Your task to perform on an android device: Search for "apple airpods pro" on bestbuy.com, select the first entry, add it to the cart, then select checkout. Image 0: 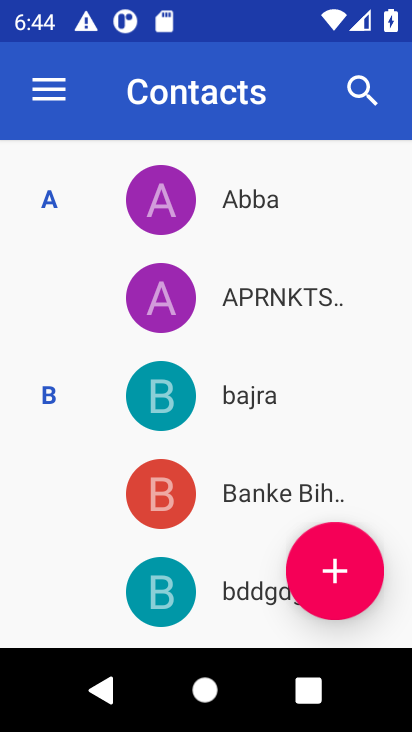
Step 0: press home button
Your task to perform on an android device: Search for "apple airpods pro" on bestbuy.com, select the first entry, add it to the cart, then select checkout. Image 1: 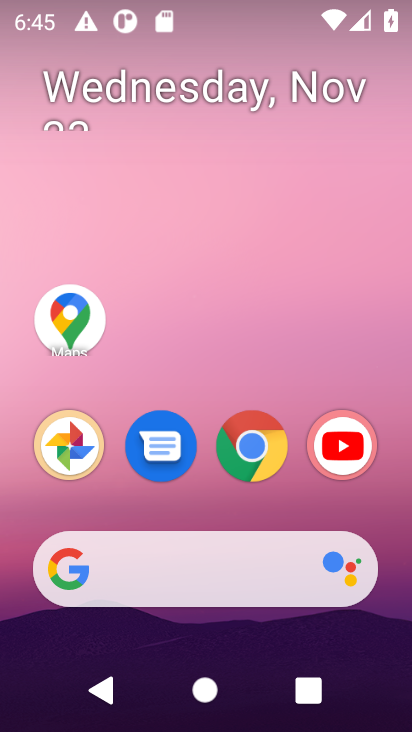
Step 1: click (126, 565)
Your task to perform on an android device: Search for "apple airpods pro" on bestbuy.com, select the first entry, add it to the cart, then select checkout. Image 2: 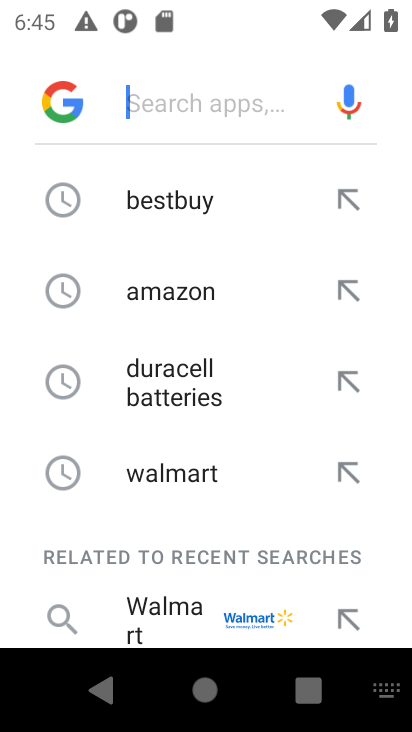
Step 2: click (202, 213)
Your task to perform on an android device: Search for "apple airpods pro" on bestbuy.com, select the first entry, add it to the cart, then select checkout. Image 3: 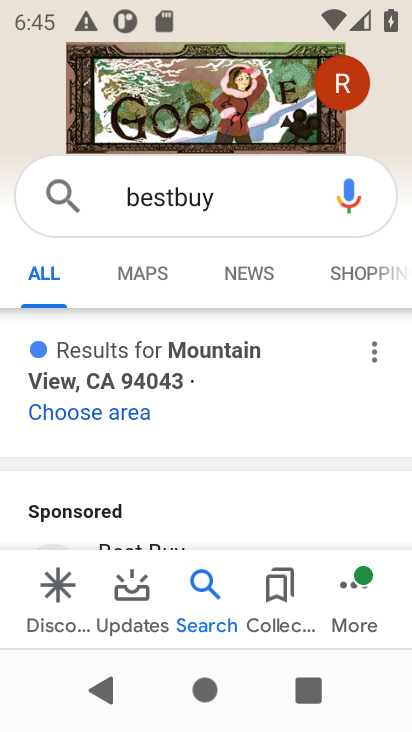
Step 3: click (136, 527)
Your task to perform on an android device: Search for "apple airpods pro" on bestbuy.com, select the first entry, add it to the cart, then select checkout. Image 4: 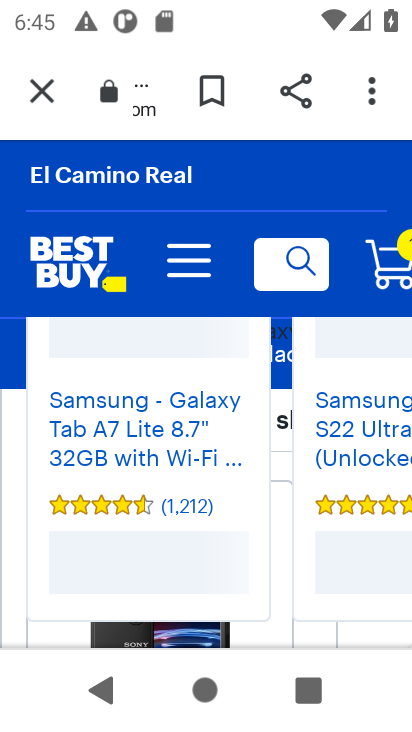
Step 4: click (270, 268)
Your task to perform on an android device: Search for "apple airpods pro" on bestbuy.com, select the first entry, add it to the cart, then select checkout. Image 5: 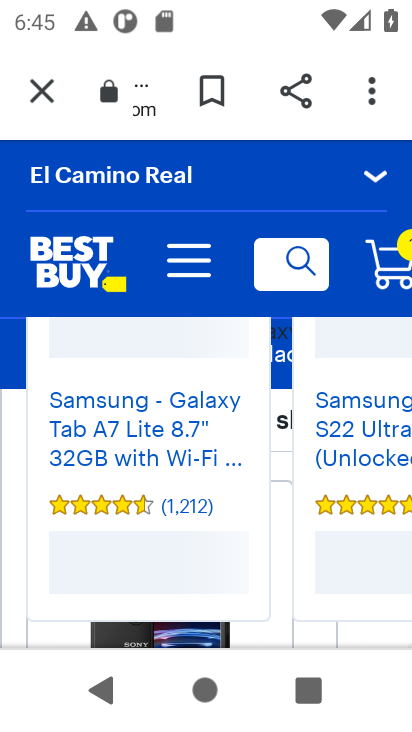
Step 5: click (272, 257)
Your task to perform on an android device: Search for "apple airpods pro" on bestbuy.com, select the first entry, add it to the cart, then select checkout. Image 6: 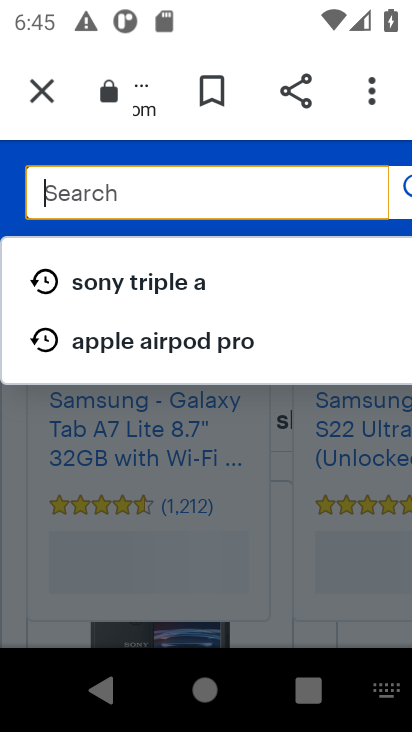
Step 6: type "apple airpods pro"
Your task to perform on an android device: Search for "apple airpods pro" on bestbuy.com, select the first entry, add it to the cart, then select checkout. Image 7: 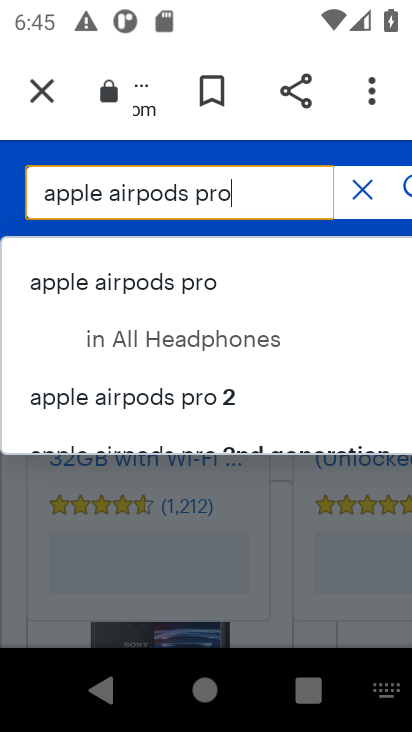
Step 7: click (204, 303)
Your task to perform on an android device: Search for "apple airpods pro" on bestbuy.com, select the first entry, add it to the cart, then select checkout. Image 8: 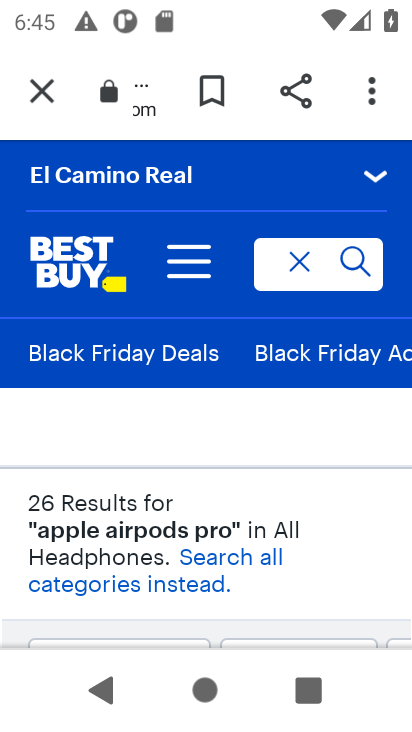
Step 8: drag from (310, 582) to (331, 315)
Your task to perform on an android device: Search for "apple airpods pro" on bestbuy.com, select the first entry, add it to the cart, then select checkout. Image 9: 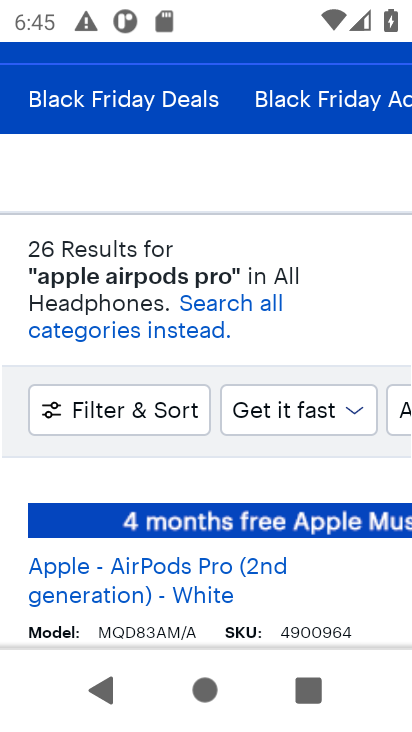
Step 9: click (232, 557)
Your task to perform on an android device: Search for "apple airpods pro" on bestbuy.com, select the first entry, add it to the cart, then select checkout. Image 10: 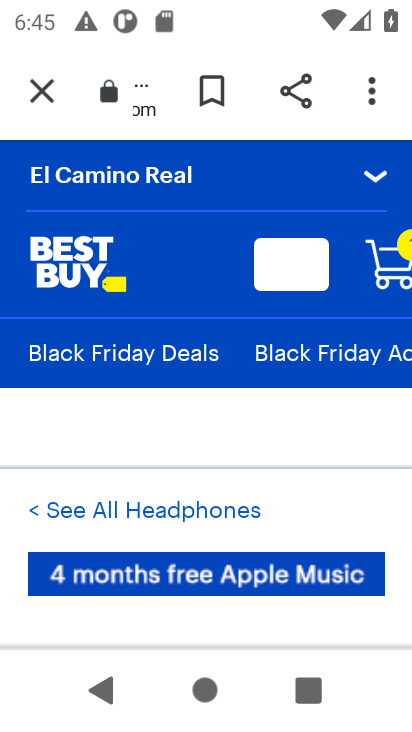
Step 10: drag from (273, 545) to (267, 130)
Your task to perform on an android device: Search for "apple airpods pro" on bestbuy.com, select the first entry, add it to the cart, then select checkout. Image 11: 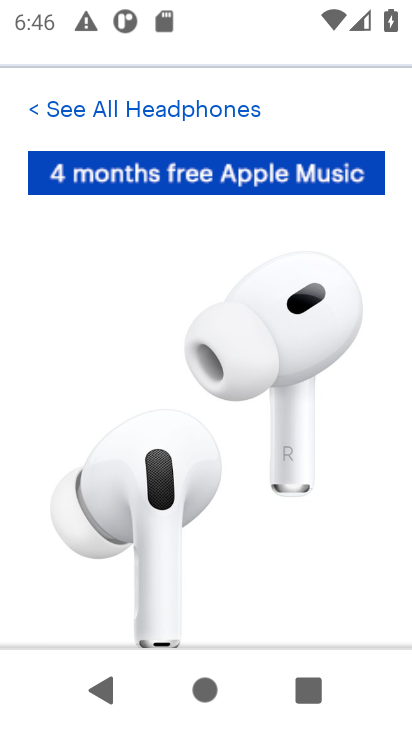
Step 11: drag from (327, 551) to (299, 103)
Your task to perform on an android device: Search for "apple airpods pro" on bestbuy.com, select the first entry, add it to the cart, then select checkout. Image 12: 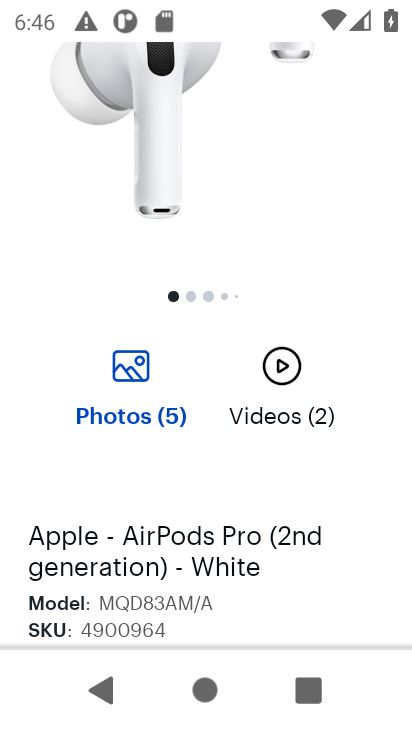
Step 12: click (230, 567)
Your task to perform on an android device: Search for "apple airpods pro" on bestbuy.com, select the first entry, add it to the cart, then select checkout. Image 13: 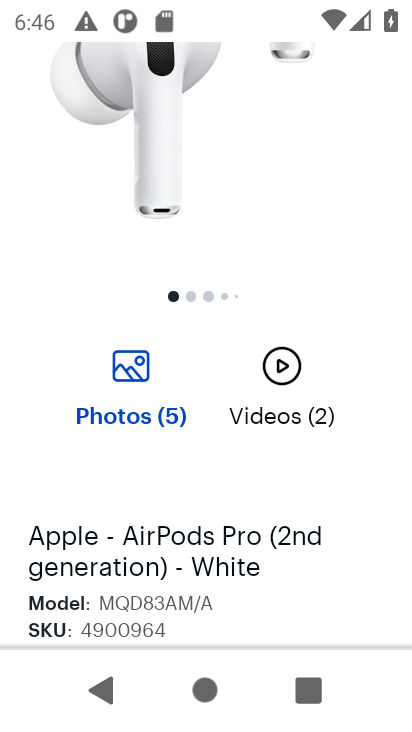
Step 13: drag from (230, 567) to (228, 218)
Your task to perform on an android device: Search for "apple airpods pro" on bestbuy.com, select the first entry, add it to the cart, then select checkout. Image 14: 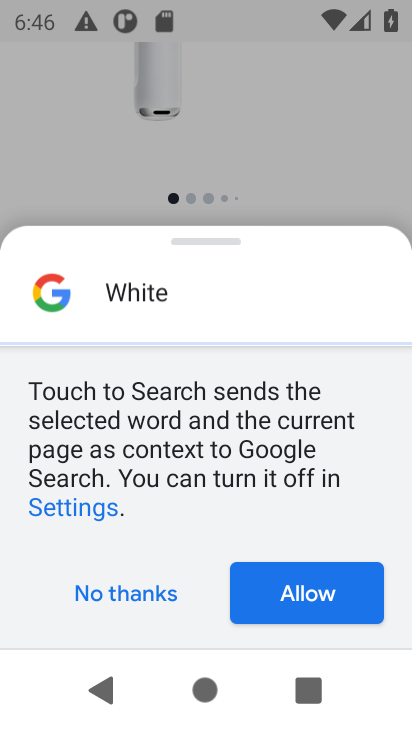
Step 14: click (282, 602)
Your task to perform on an android device: Search for "apple airpods pro" on bestbuy.com, select the first entry, add it to the cart, then select checkout. Image 15: 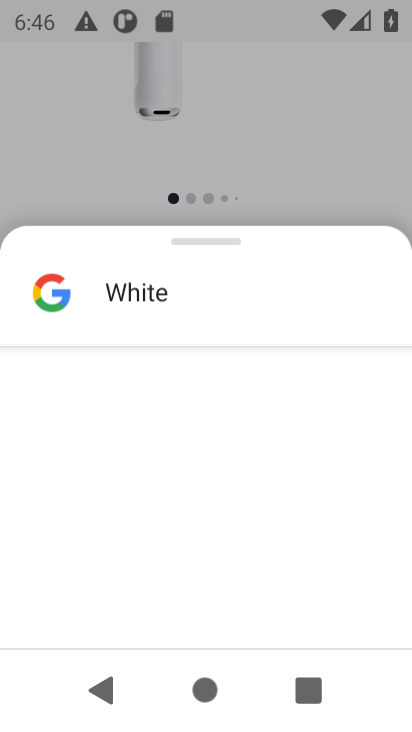
Step 15: click (325, 170)
Your task to perform on an android device: Search for "apple airpods pro" on bestbuy.com, select the first entry, add it to the cart, then select checkout. Image 16: 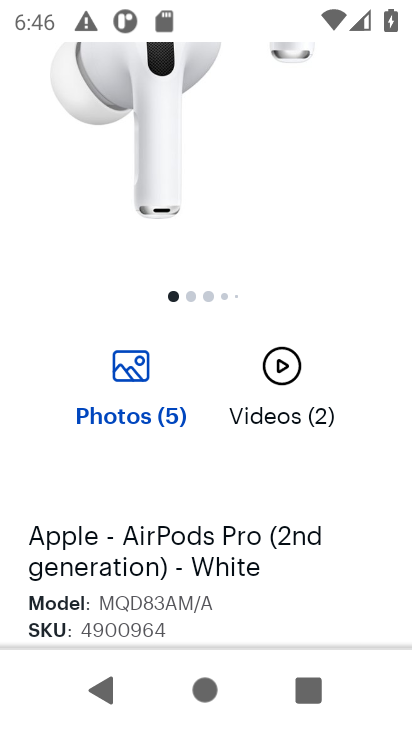
Step 16: task complete